Your task to perform on an android device: change notifications settings Image 0: 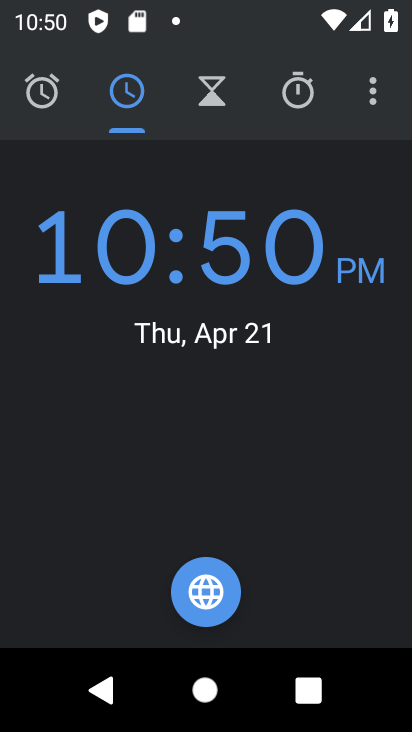
Step 0: press home button
Your task to perform on an android device: change notifications settings Image 1: 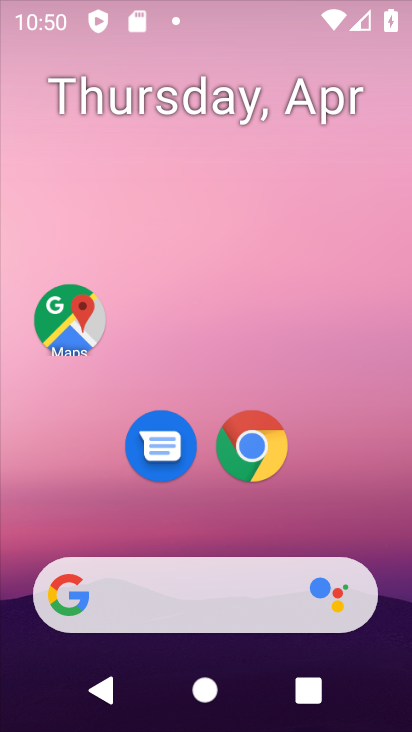
Step 1: drag from (207, 511) to (262, 71)
Your task to perform on an android device: change notifications settings Image 2: 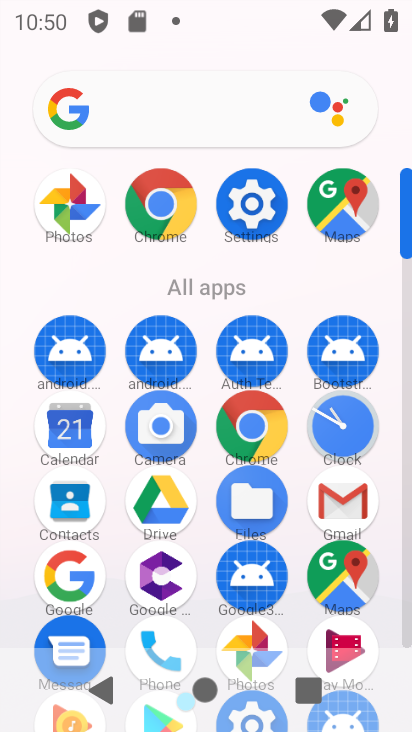
Step 2: click (257, 215)
Your task to perform on an android device: change notifications settings Image 3: 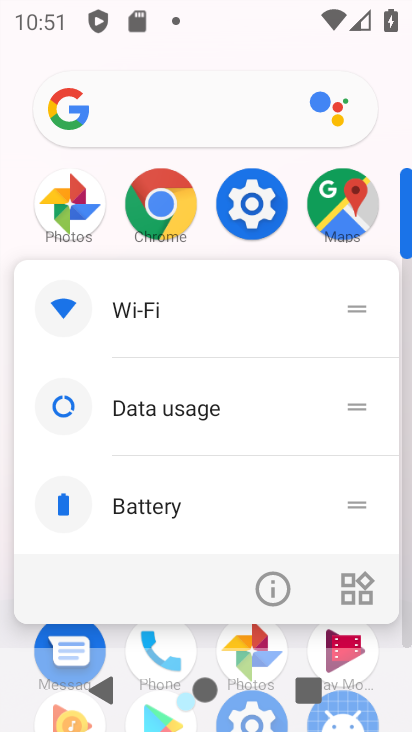
Step 3: click (274, 575)
Your task to perform on an android device: change notifications settings Image 4: 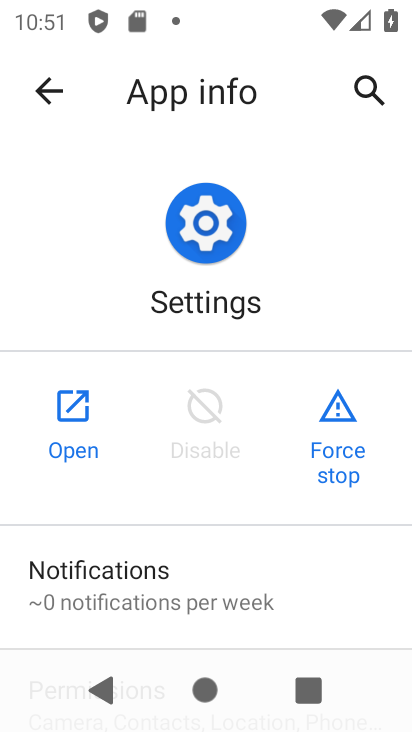
Step 4: click (74, 438)
Your task to perform on an android device: change notifications settings Image 5: 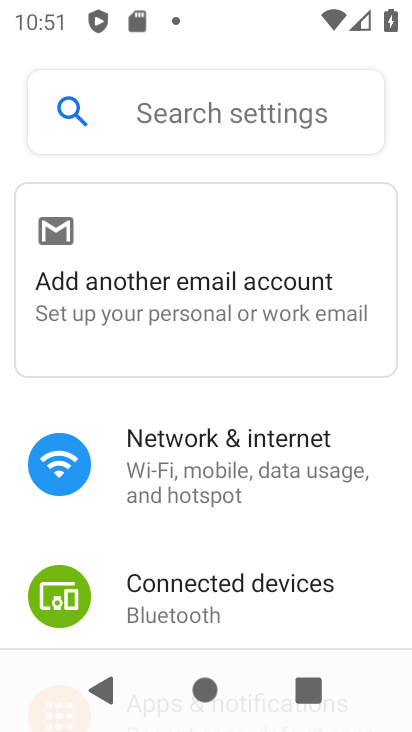
Step 5: drag from (238, 598) to (298, 179)
Your task to perform on an android device: change notifications settings Image 6: 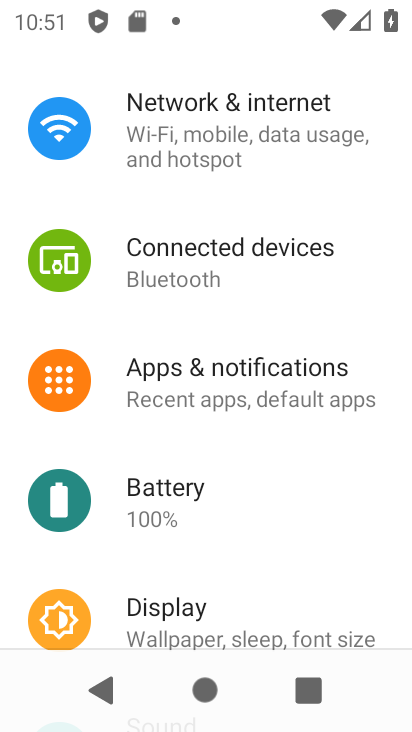
Step 6: click (206, 382)
Your task to perform on an android device: change notifications settings Image 7: 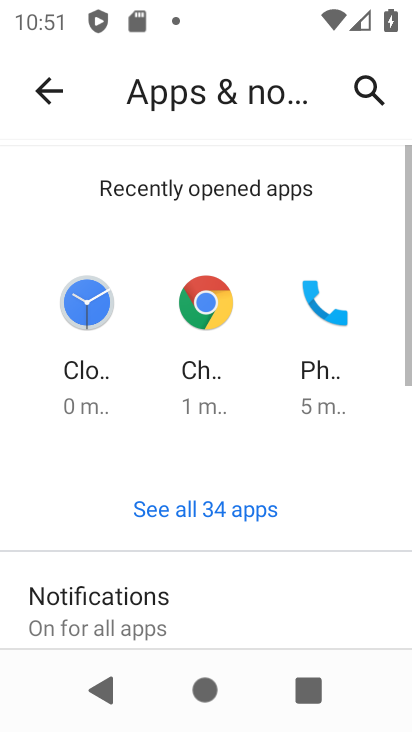
Step 7: drag from (177, 607) to (261, 178)
Your task to perform on an android device: change notifications settings Image 8: 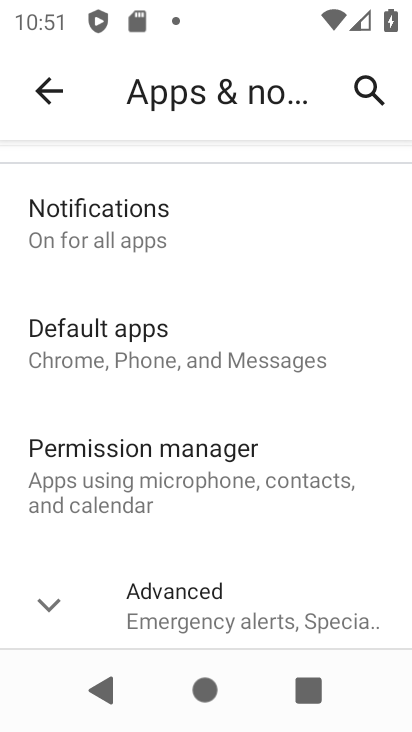
Step 8: click (177, 230)
Your task to perform on an android device: change notifications settings Image 9: 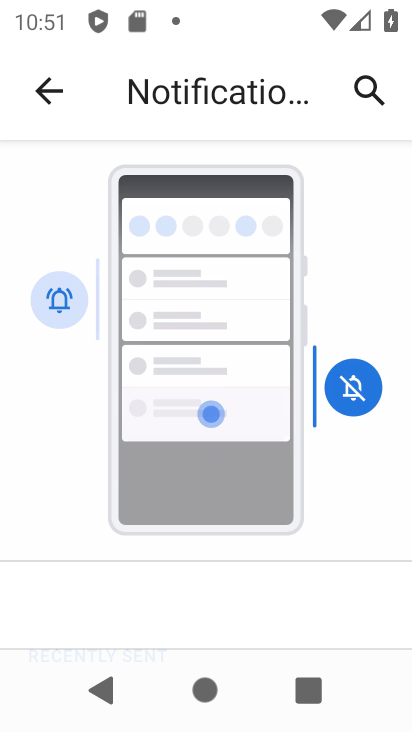
Step 9: drag from (200, 630) to (343, 41)
Your task to perform on an android device: change notifications settings Image 10: 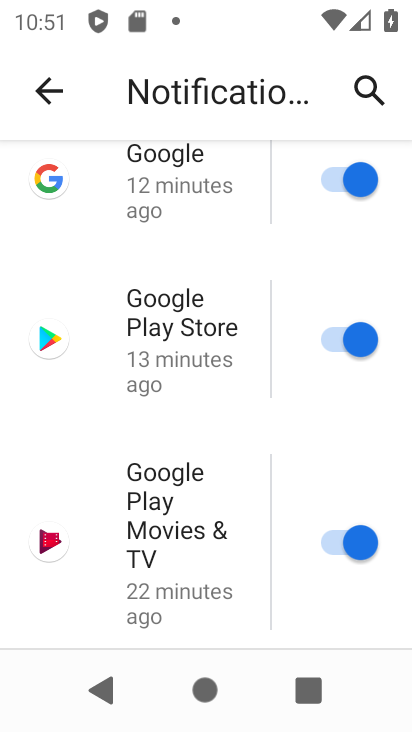
Step 10: drag from (233, 562) to (291, 127)
Your task to perform on an android device: change notifications settings Image 11: 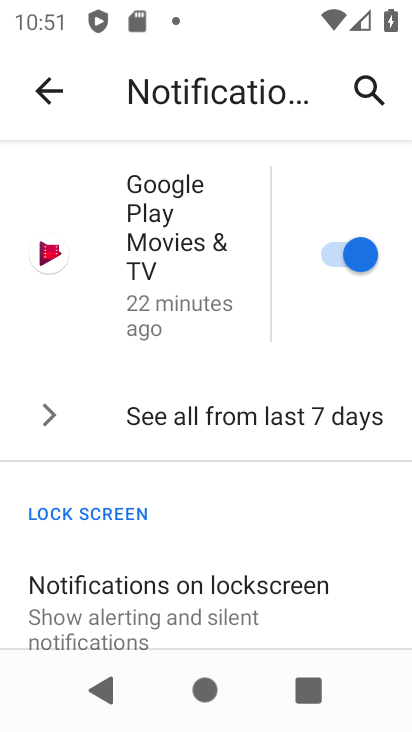
Step 11: drag from (193, 591) to (254, 148)
Your task to perform on an android device: change notifications settings Image 12: 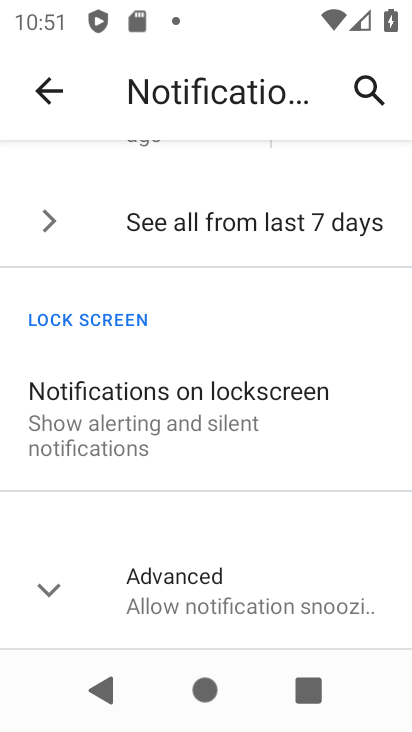
Step 12: click (175, 556)
Your task to perform on an android device: change notifications settings Image 13: 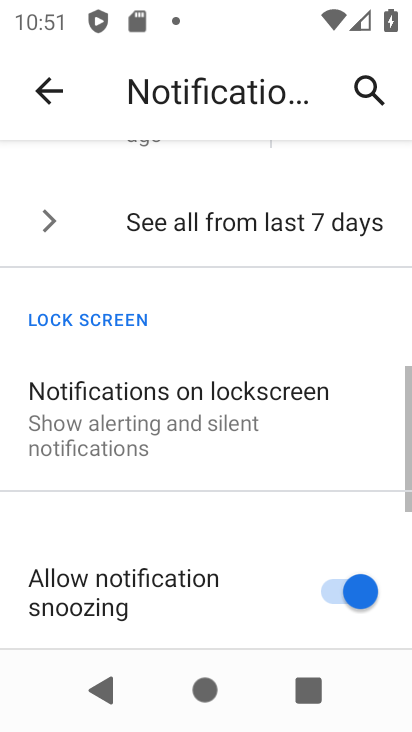
Step 13: drag from (185, 564) to (297, 190)
Your task to perform on an android device: change notifications settings Image 14: 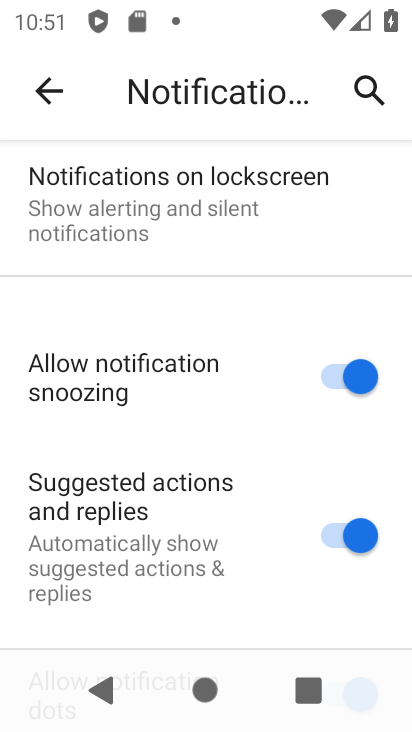
Step 14: drag from (202, 467) to (282, 64)
Your task to perform on an android device: change notifications settings Image 15: 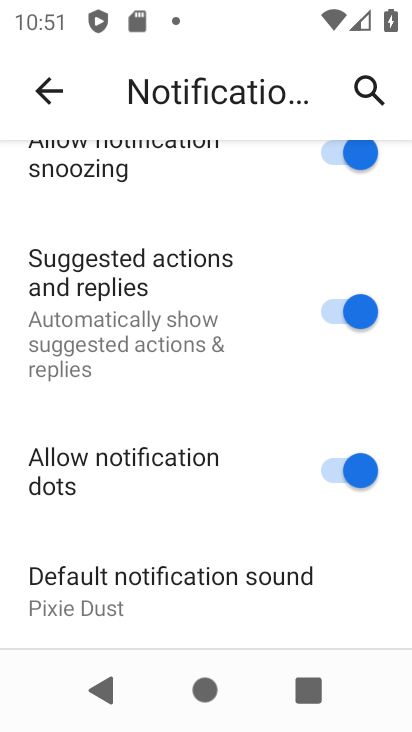
Step 15: click (175, 569)
Your task to perform on an android device: change notifications settings Image 16: 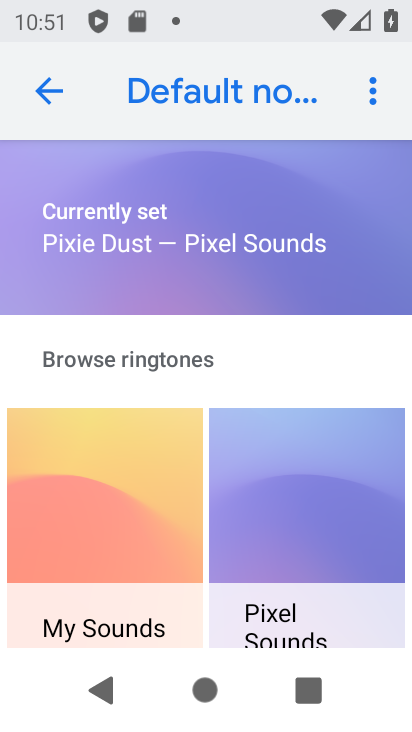
Step 16: click (51, 87)
Your task to perform on an android device: change notifications settings Image 17: 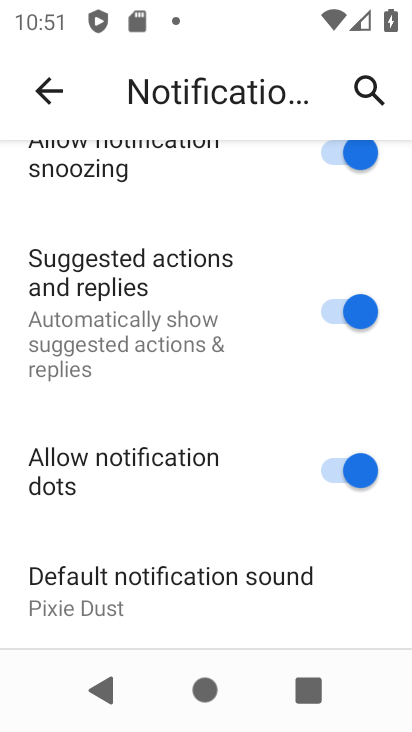
Step 17: click (334, 316)
Your task to perform on an android device: change notifications settings Image 18: 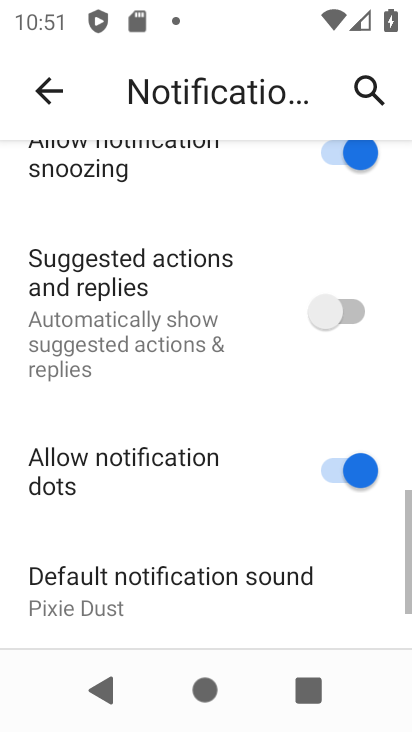
Step 18: task complete